Your task to perform on an android device: Go to battery settings Image 0: 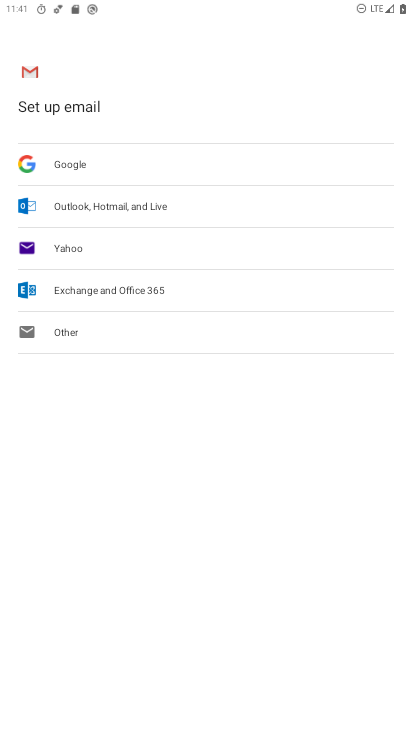
Step 0: press home button
Your task to perform on an android device: Go to battery settings Image 1: 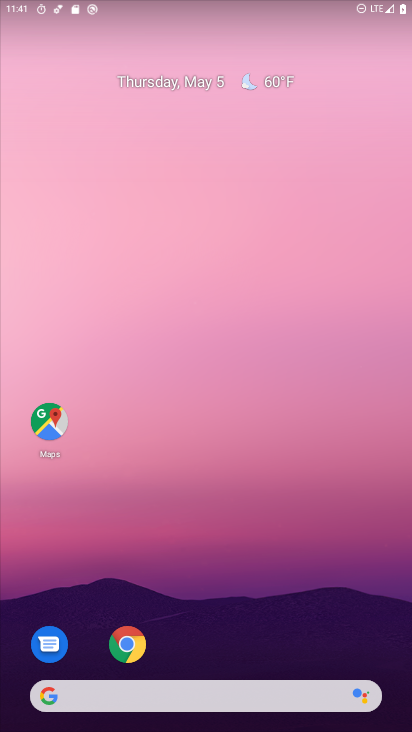
Step 1: drag from (360, 594) to (346, 47)
Your task to perform on an android device: Go to battery settings Image 2: 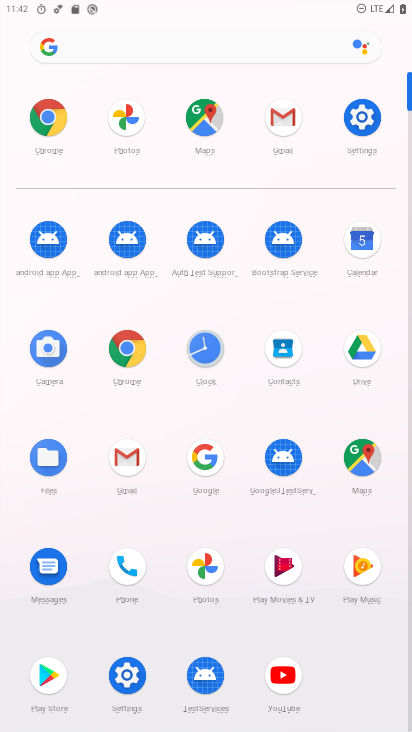
Step 2: click (132, 668)
Your task to perform on an android device: Go to battery settings Image 3: 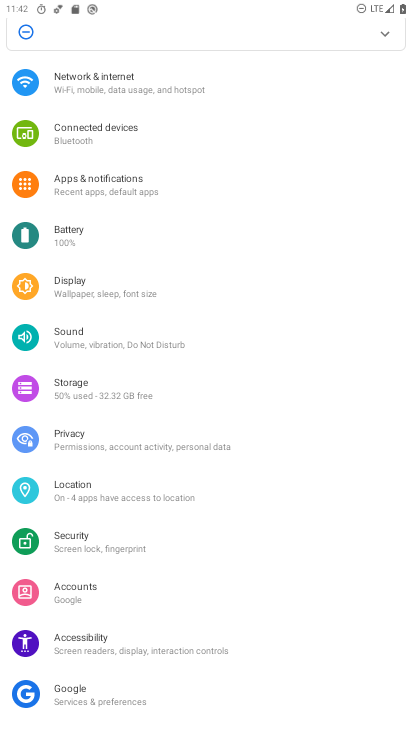
Step 3: click (74, 227)
Your task to perform on an android device: Go to battery settings Image 4: 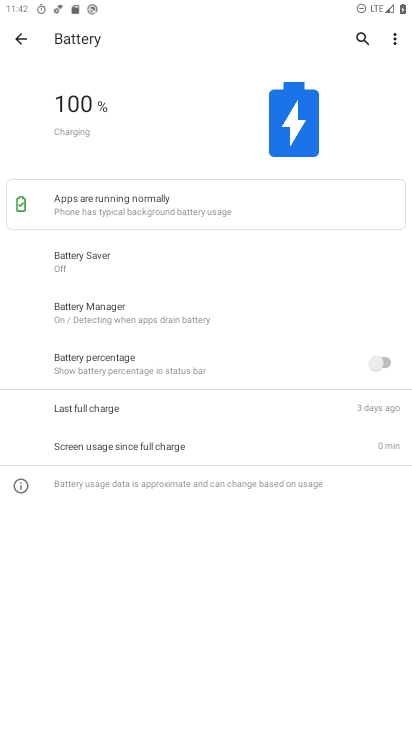
Step 4: click (395, 38)
Your task to perform on an android device: Go to battery settings Image 5: 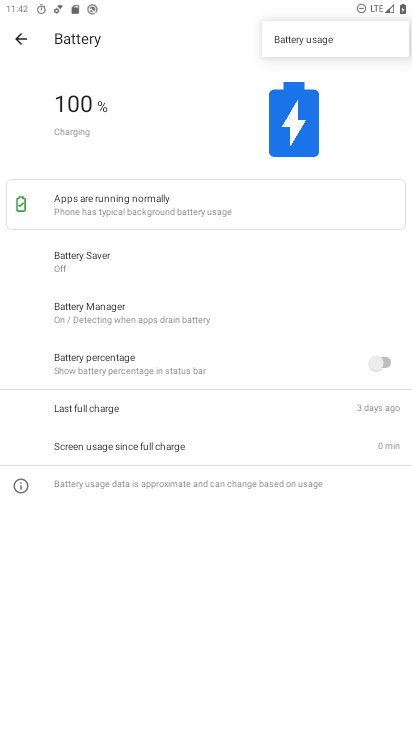
Step 5: task complete